Your task to perform on an android device: What's the weather? Image 0: 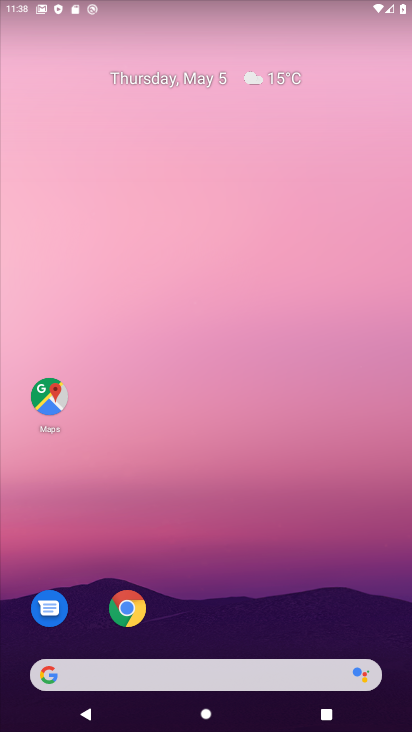
Step 0: click (126, 619)
Your task to perform on an android device: What's the weather? Image 1: 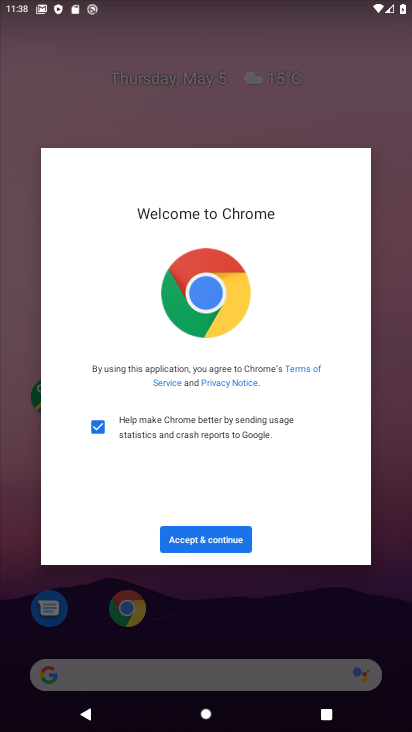
Step 1: click (212, 548)
Your task to perform on an android device: What's the weather? Image 2: 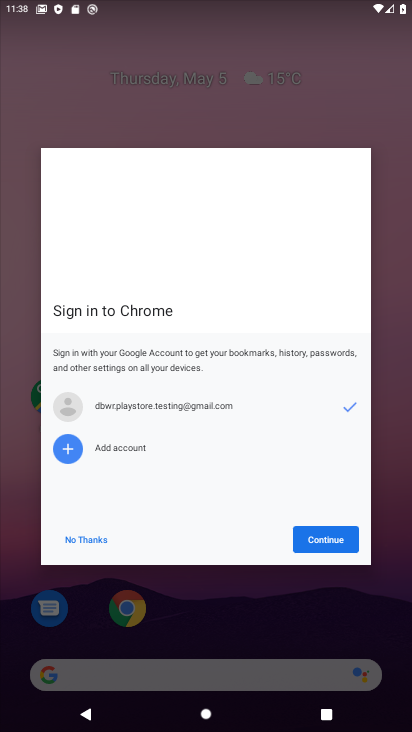
Step 2: click (341, 538)
Your task to perform on an android device: What's the weather? Image 3: 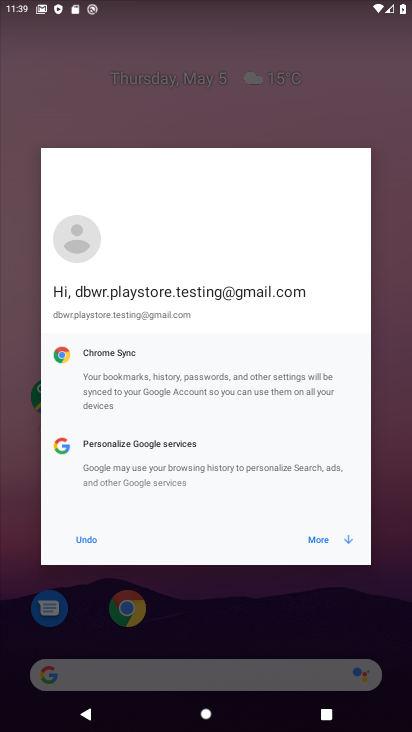
Step 3: click (316, 546)
Your task to perform on an android device: What's the weather? Image 4: 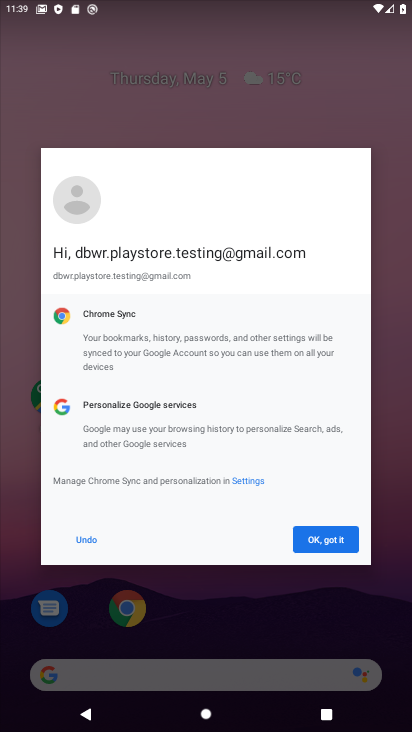
Step 4: click (334, 537)
Your task to perform on an android device: What's the weather? Image 5: 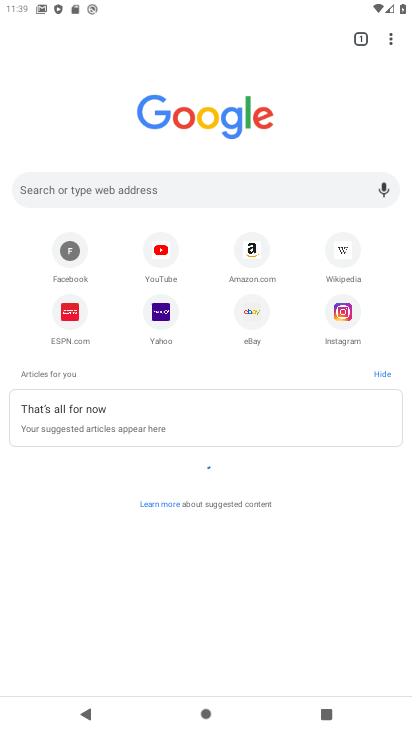
Step 5: click (156, 184)
Your task to perform on an android device: What's the weather? Image 6: 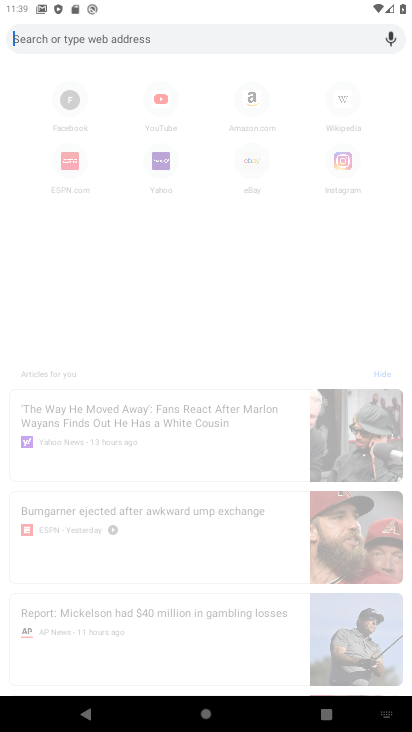
Step 6: type "what's the weather?"
Your task to perform on an android device: What's the weather? Image 7: 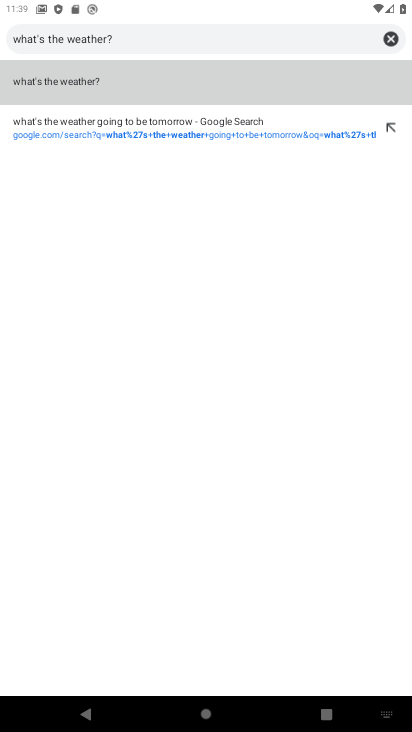
Step 7: click (80, 90)
Your task to perform on an android device: What's the weather? Image 8: 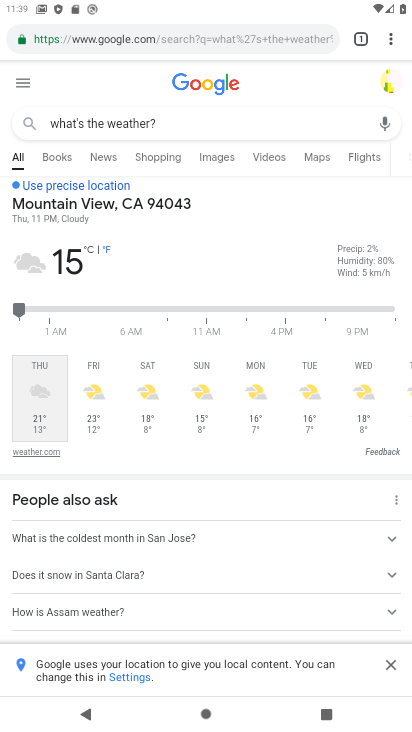
Step 8: task complete